Your task to perform on an android device: Toggle the flashlight Image 0: 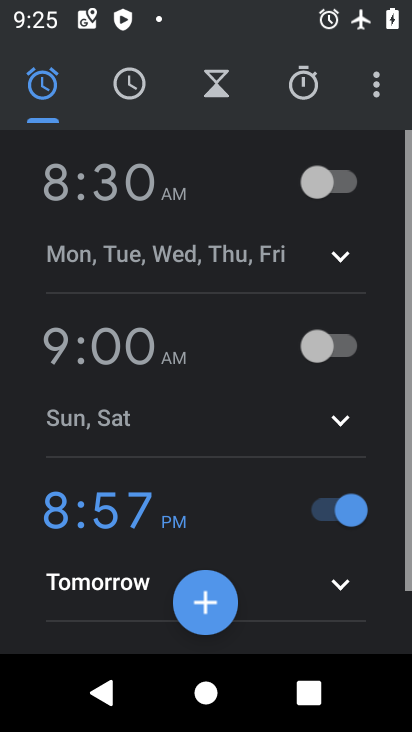
Step 0: drag from (325, 486) to (272, 0)
Your task to perform on an android device: Toggle the flashlight Image 1: 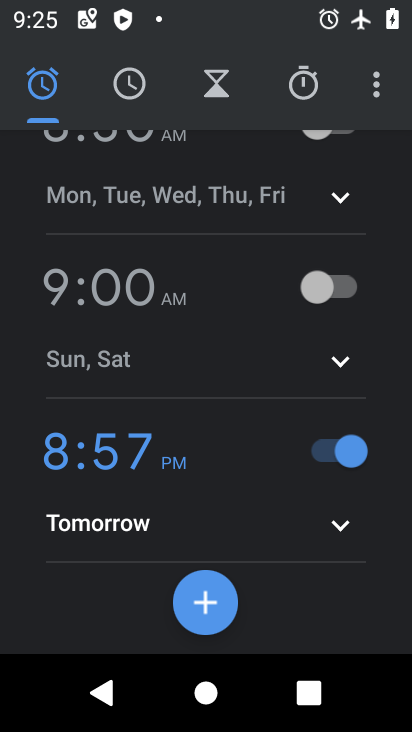
Step 1: press home button
Your task to perform on an android device: Toggle the flashlight Image 2: 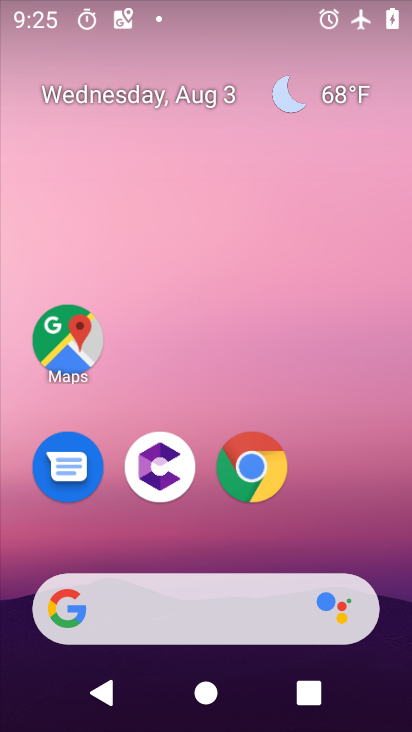
Step 2: drag from (356, 485) to (355, 11)
Your task to perform on an android device: Toggle the flashlight Image 3: 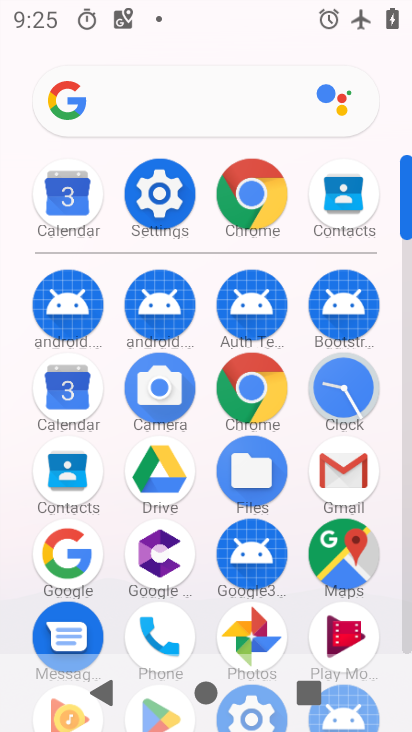
Step 3: click (173, 185)
Your task to perform on an android device: Toggle the flashlight Image 4: 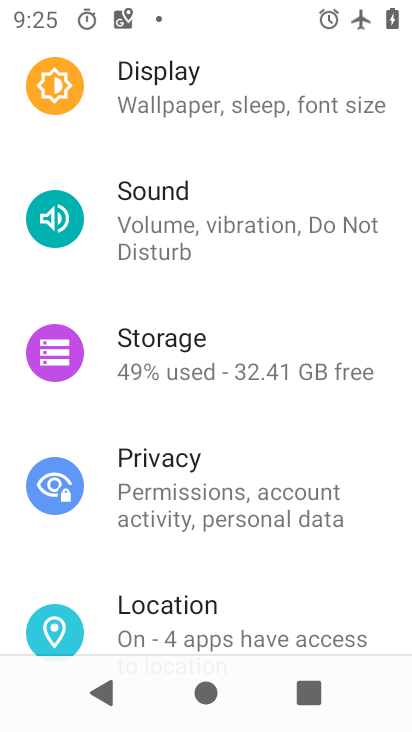
Step 4: click (171, 99)
Your task to perform on an android device: Toggle the flashlight Image 5: 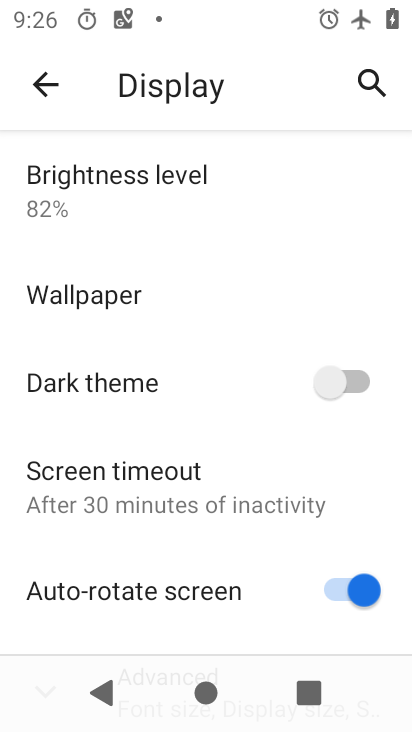
Step 5: drag from (232, 578) to (232, 187)
Your task to perform on an android device: Toggle the flashlight Image 6: 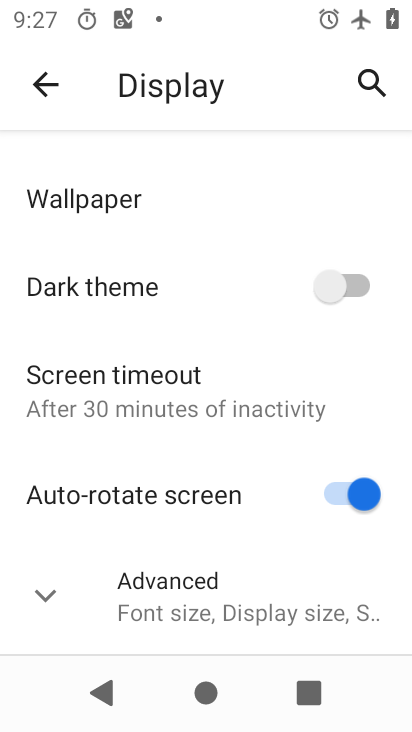
Step 6: click (91, 375)
Your task to perform on an android device: Toggle the flashlight Image 7: 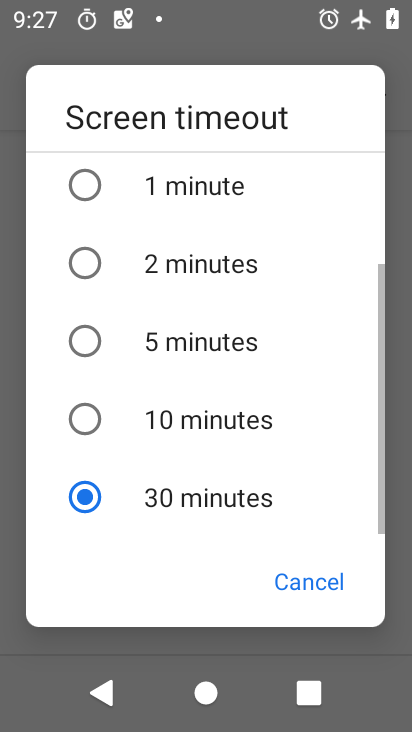
Step 7: task complete